Your task to perform on an android device: toggle sleep mode Image 0: 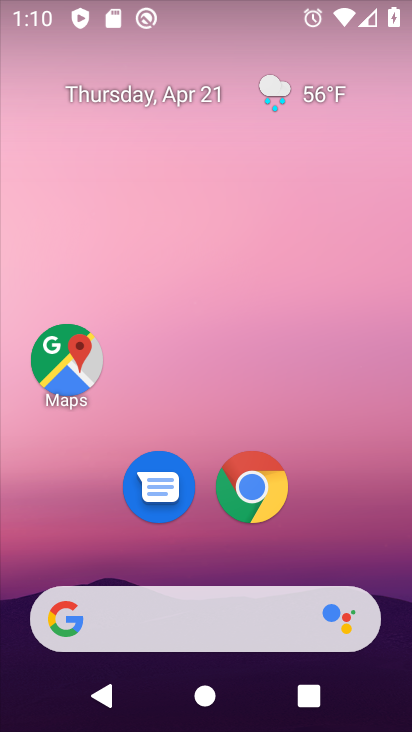
Step 0: drag from (350, 484) to (319, 58)
Your task to perform on an android device: toggle sleep mode Image 1: 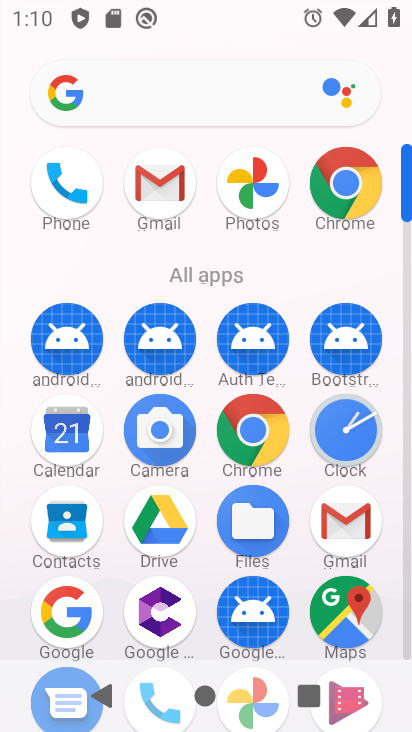
Step 1: drag from (200, 605) to (200, 325)
Your task to perform on an android device: toggle sleep mode Image 2: 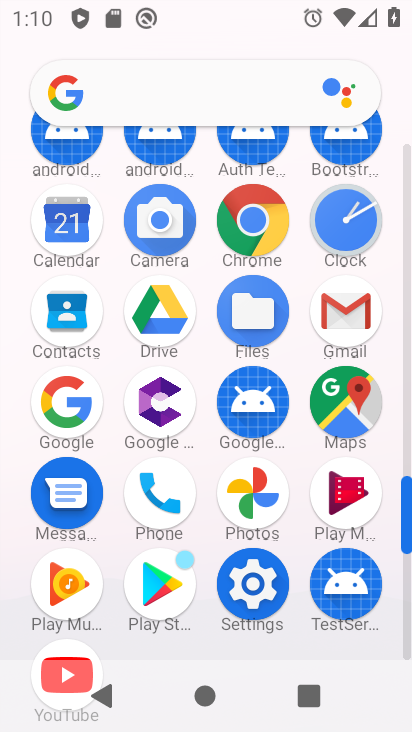
Step 2: click (267, 602)
Your task to perform on an android device: toggle sleep mode Image 3: 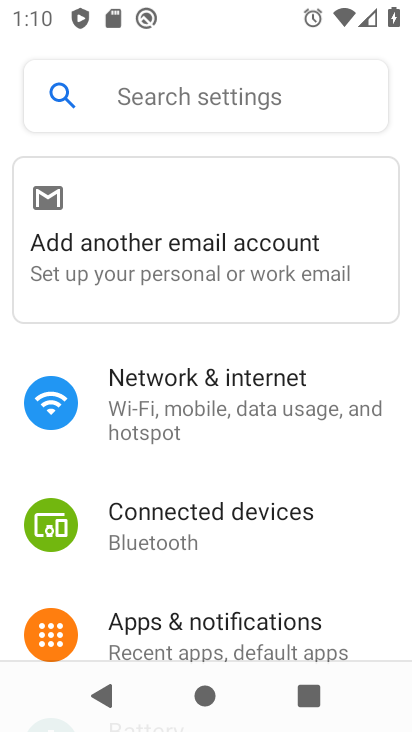
Step 3: drag from (268, 556) to (245, 171)
Your task to perform on an android device: toggle sleep mode Image 4: 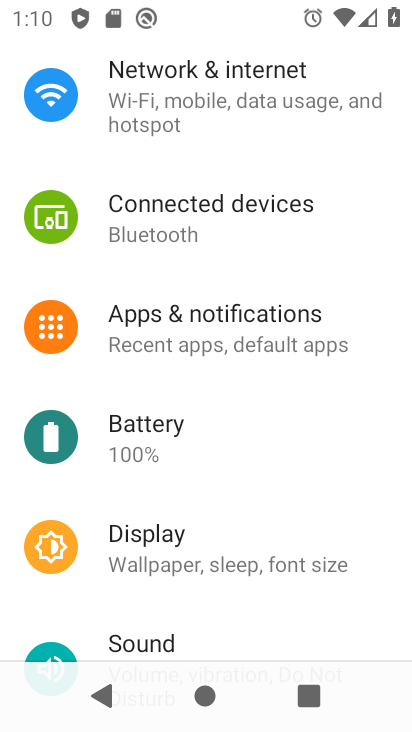
Step 4: click (148, 553)
Your task to perform on an android device: toggle sleep mode Image 5: 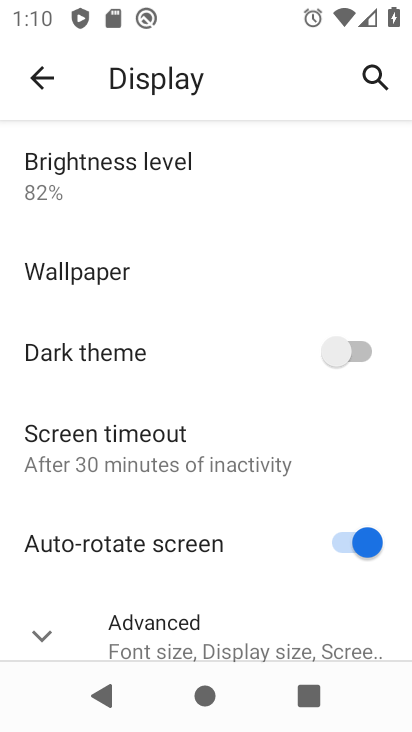
Step 5: click (151, 641)
Your task to perform on an android device: toggle sleep mode Image 6: 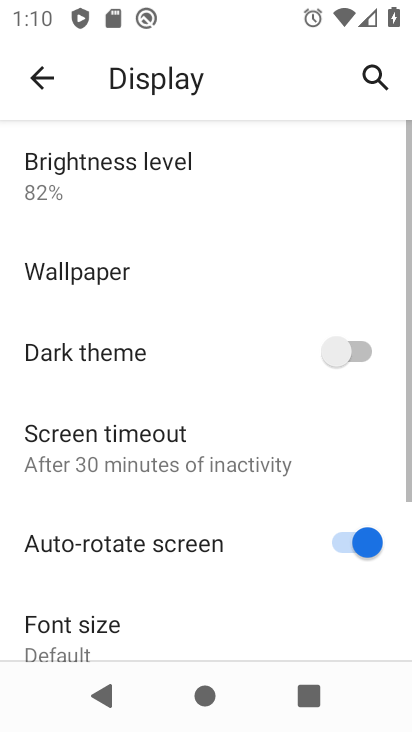
Step 6: task complete